Your task to perform on an android device: manage bookmarks in the chrome app Image 0: 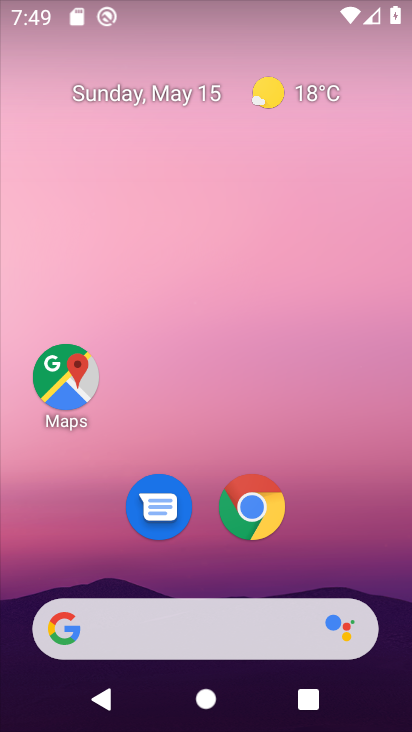
Step 0: click (252, 503)
Your task to perform on an android device: manage bookmarks in the chrome app Image 1: 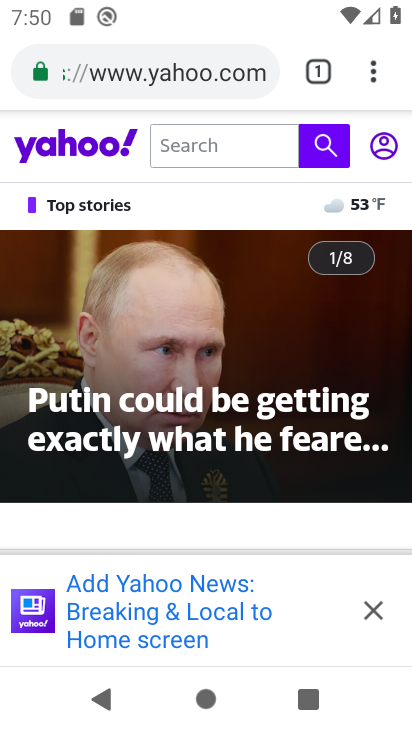
Step 1: click (373, 79)
Your task to perform on an android device: manage bookmarks in the chrome app Image 2: 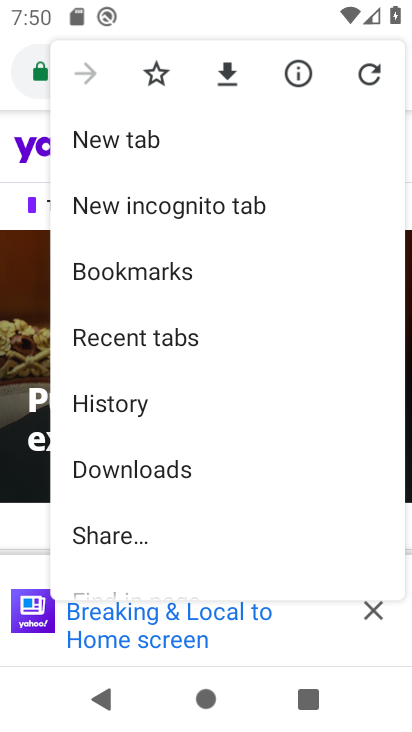
Step 2: click (115, 276)
Your task to perform on an android device: manage bookmarks in the chrome app Image 3: 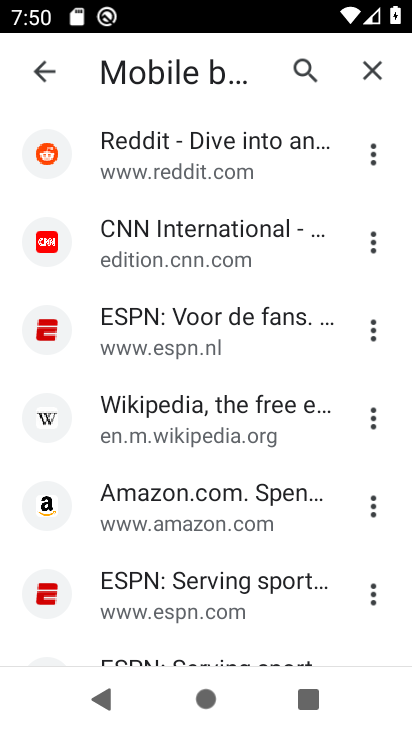
Step 3: click (148, 414)
Your task to perform on an android device: manage bookmarks in the chrome app Image 4: 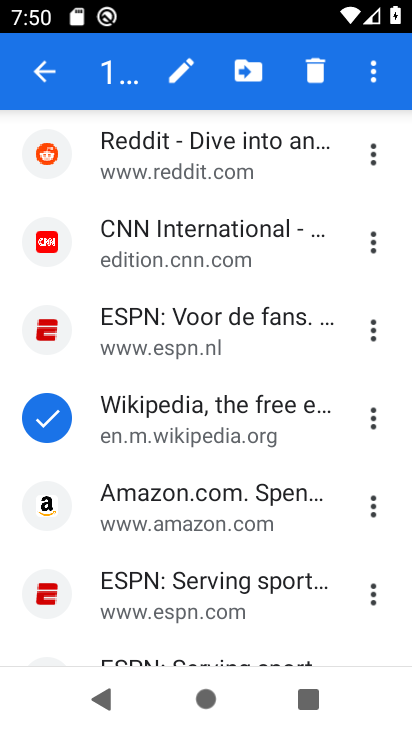
Step 4: click (242, 79)
Your task to perform on an android device: manage bookmarks in the chrome app Image 5: 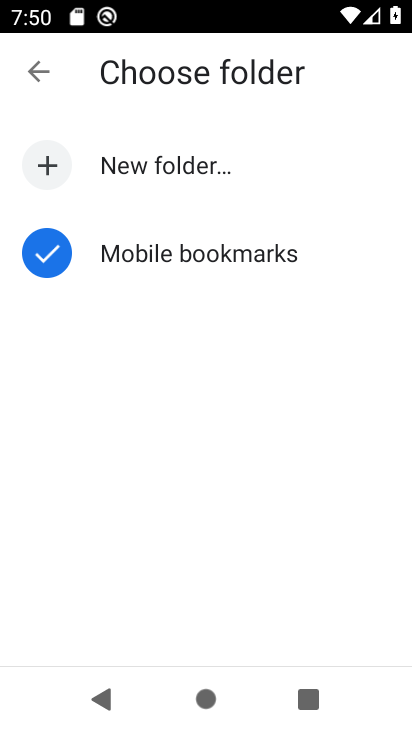
Step 5: click (49, 167)
Your task to perform on an android device: manage bookmarks in the chrome app Image 6: 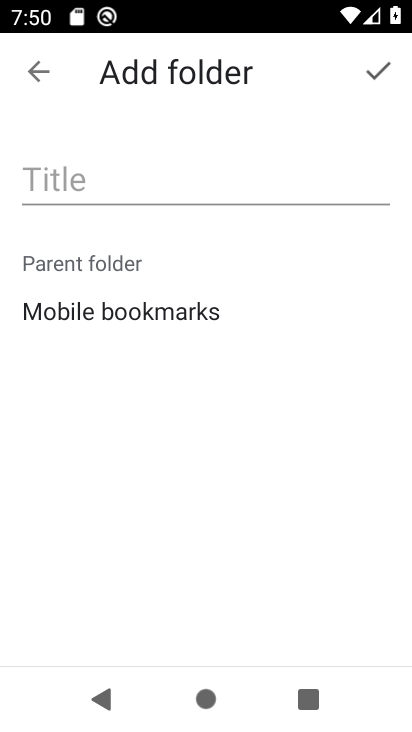
Step 6: click (95, 183)
Your task to perform on an android device: manage bookmarks in the chrome app Image 7: 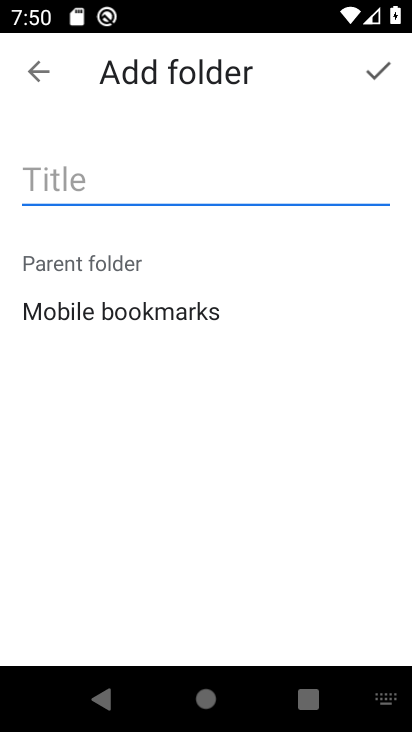
Step 7: type "fgfhgfh"
Your task to perform on an android device: manage bookmarks in the chrome app Image 8: 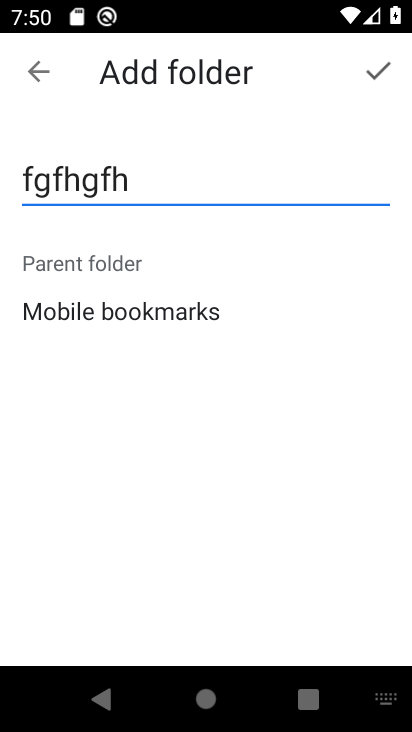
Step 8: click (372, 65)
Your task to perform on an android device: manage bookmarks in the chrome app Image 9: 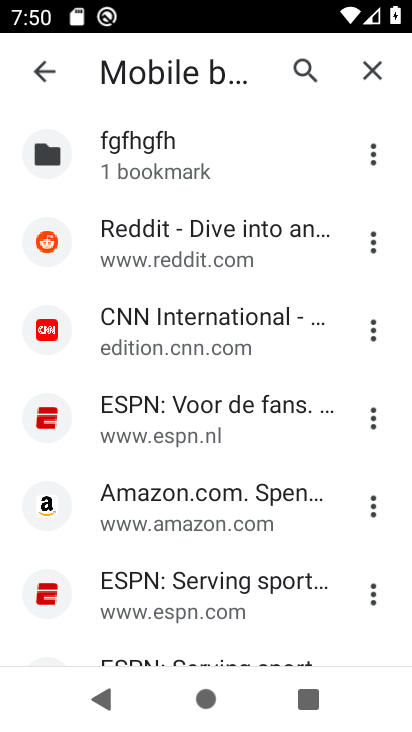
Step 9: click (107, 149)
Your task to perform on an android device: manage bookmarks in the chrome app Image 10: 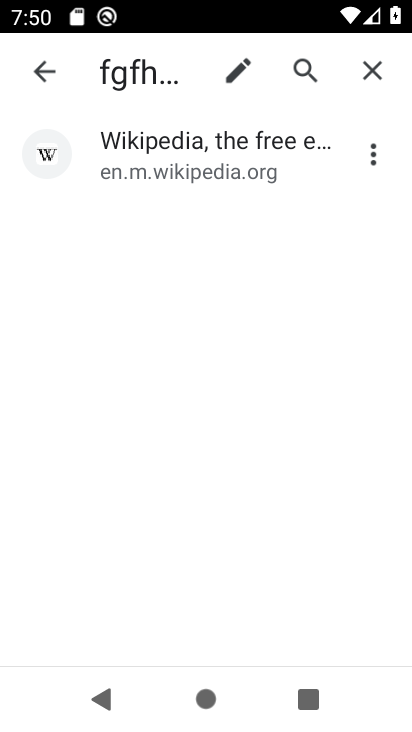
Step 10: task complete